Your task to perform on an android device: check android version Image 0: 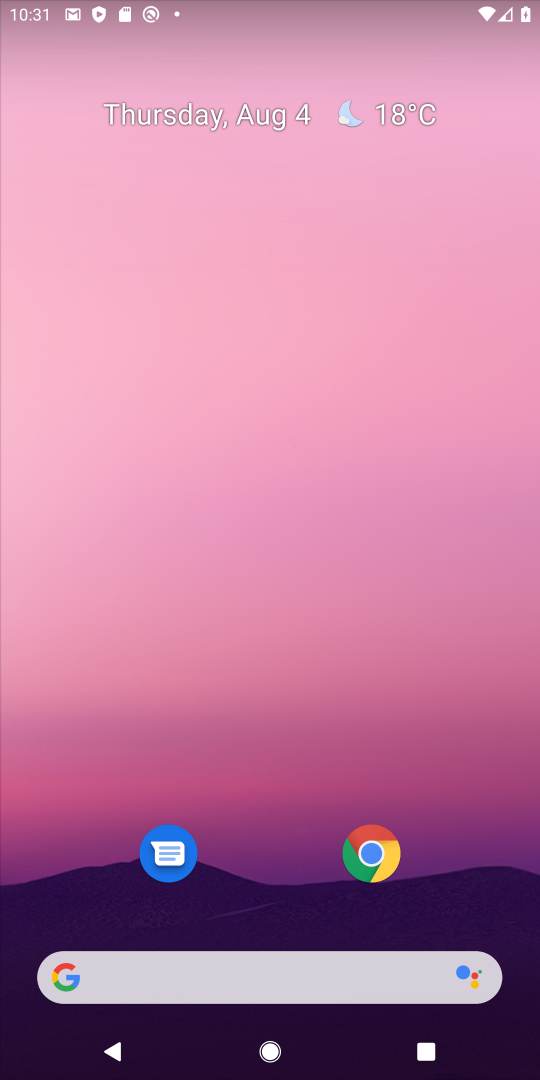
Step 0: drag from (252, 949) to (261, 204)
Your task to perform on an android device: check android version Image 1: 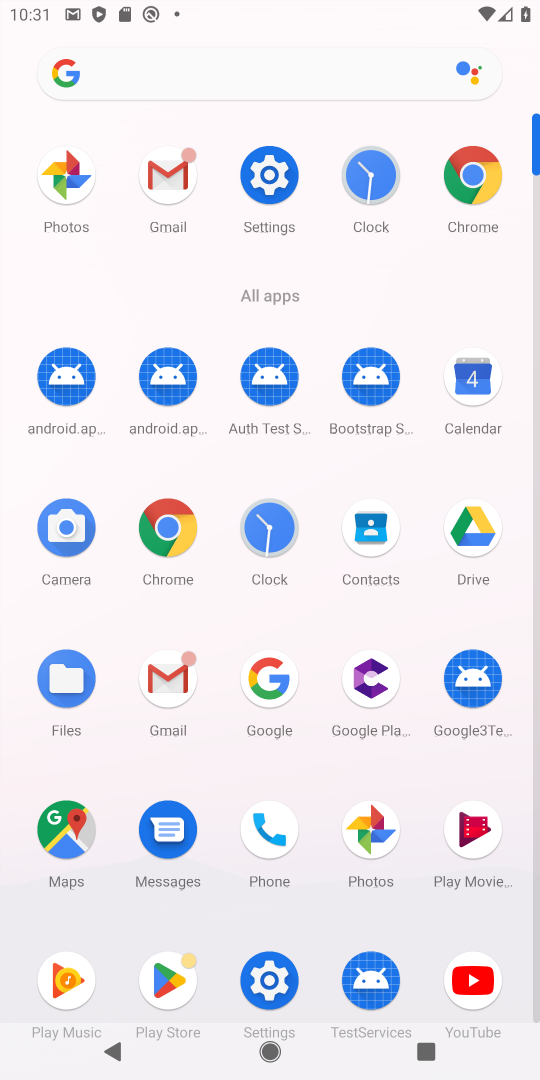
Step 1: click (262, 195)
Your task to perform on an android device: check android version Image 2: 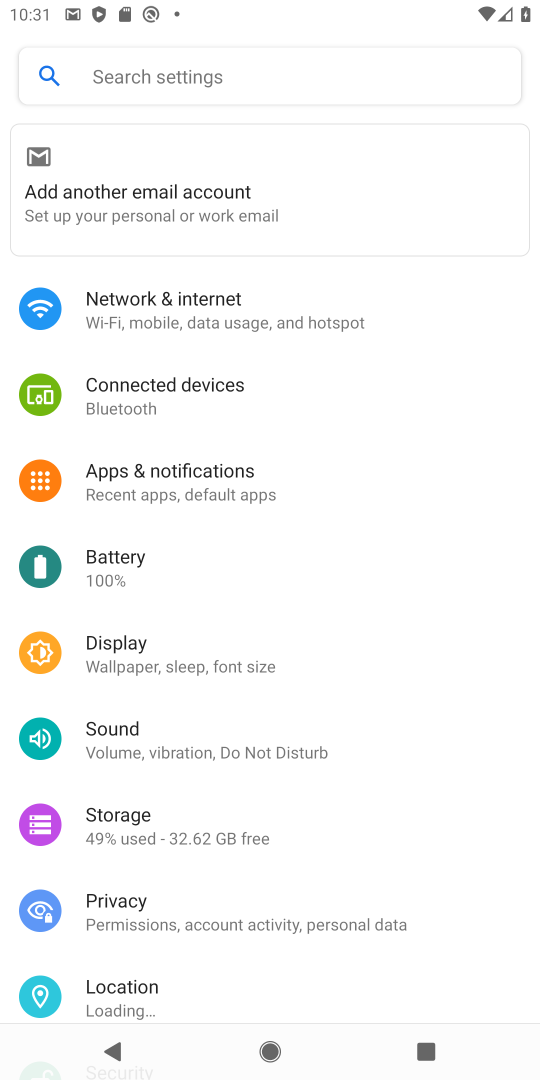
Step 2: drag from (290, 862) to (275, 141)
Your task to perform on an android device: check android version Image 3: 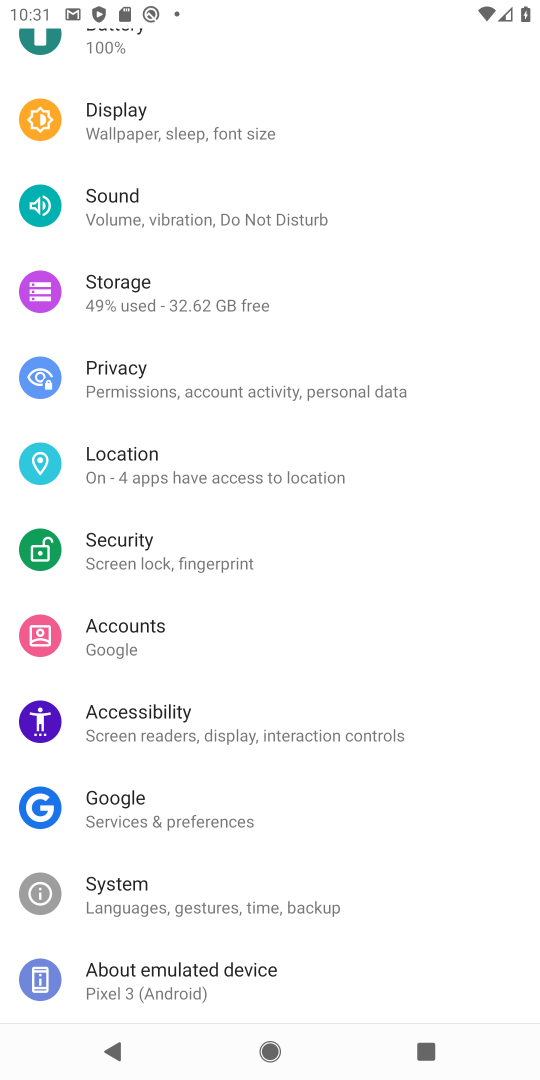
Step 3: drag from (251, 860) to (245, 282)
Your task to perform on an android device: check android version Image 4: 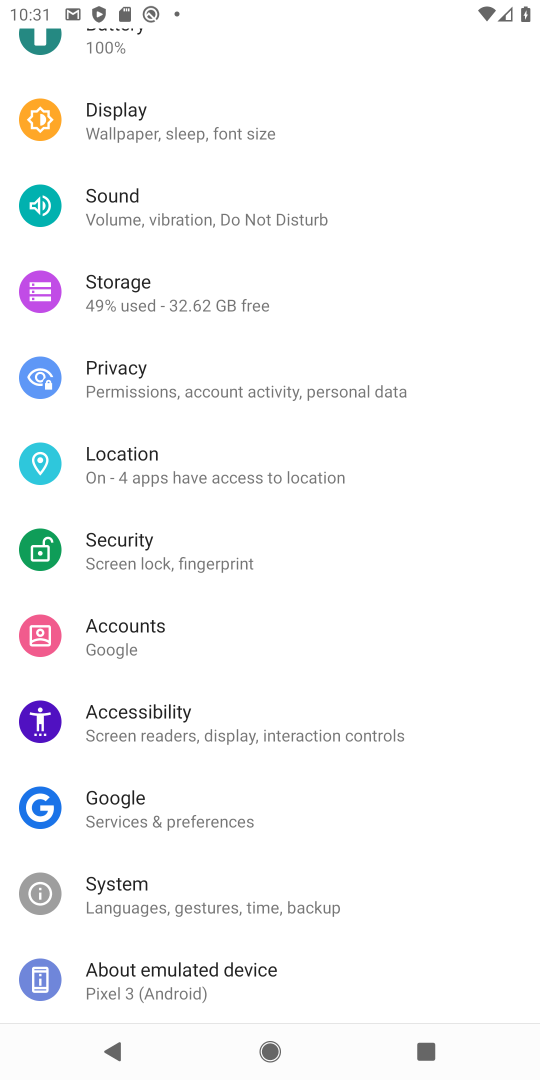
Step 4: click (173, 962)
Your task to perform on an android device: check android version Image 5: 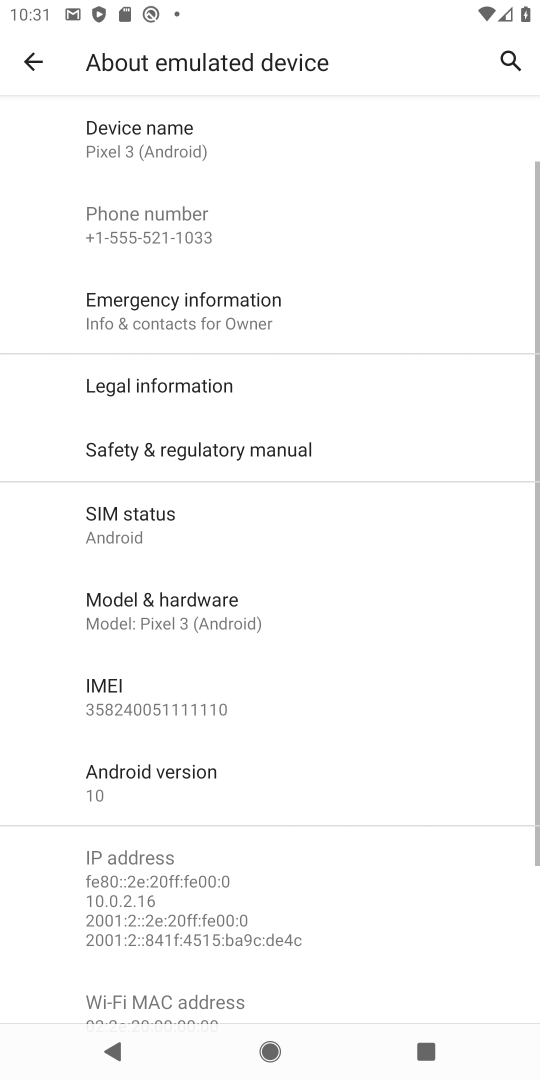
Step 5: drag from (172, 963) to (165, 553)
Your task to perform on an android device: check android version Image 6: 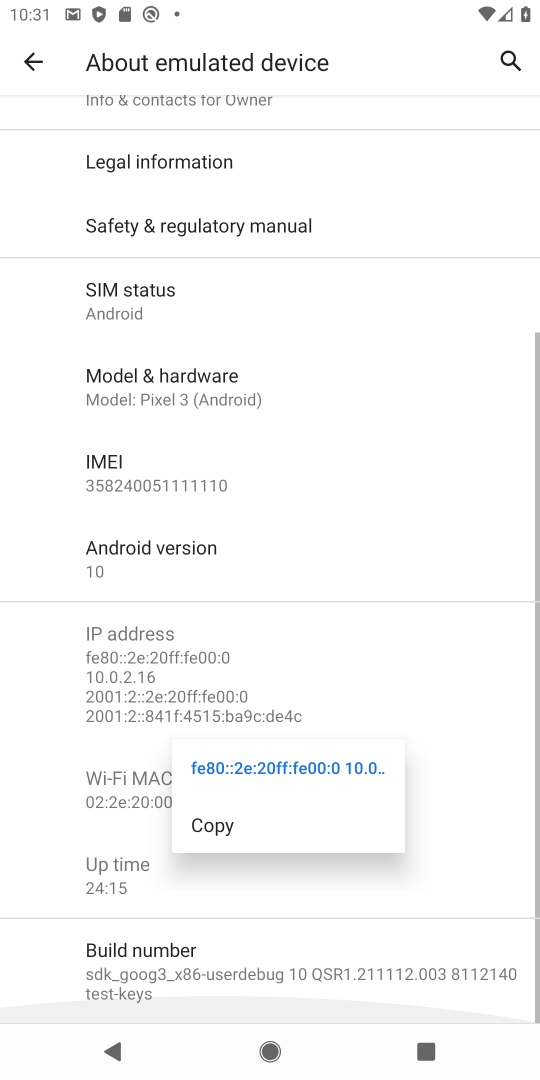
Step 6: click (154, 553)
Your task to perform on an android device: check android version Image 7: 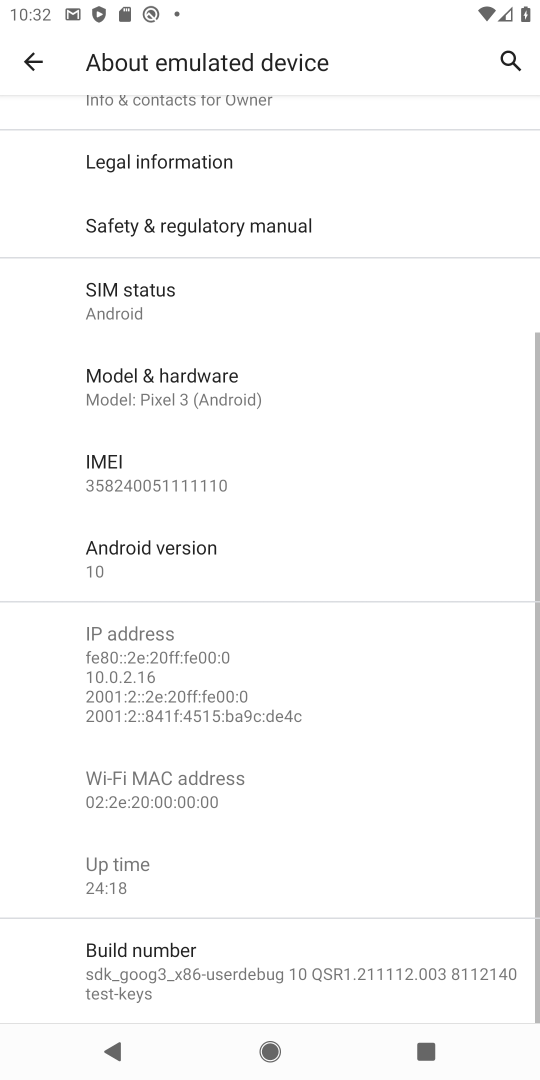
Step 7: click (153, 554)
Your task to perform on an android device: check android version Image 8: 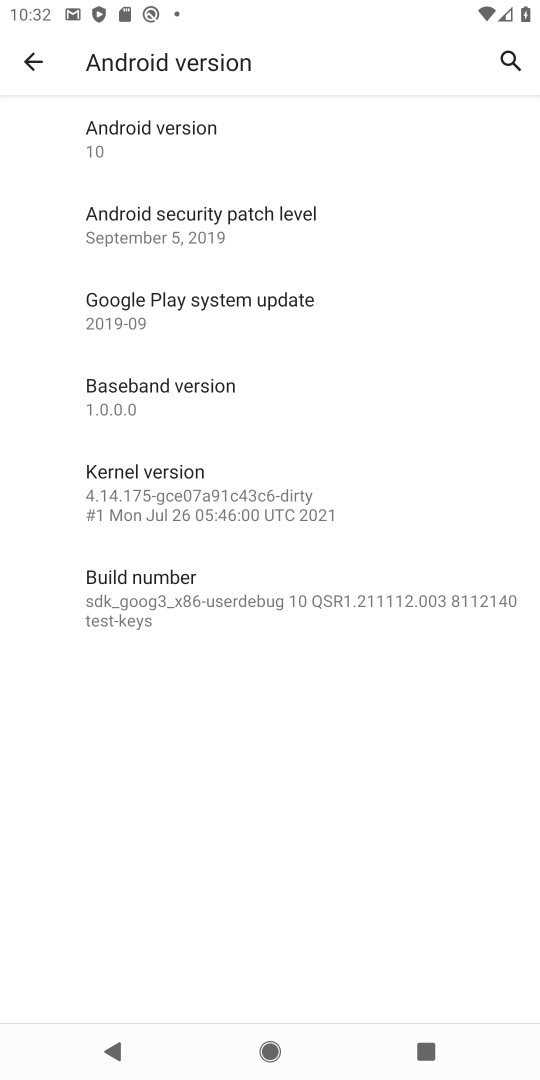
Step 8: task complete